Your task to perform on an android device: open the mobile data screen to see how much data has been used Image 0: 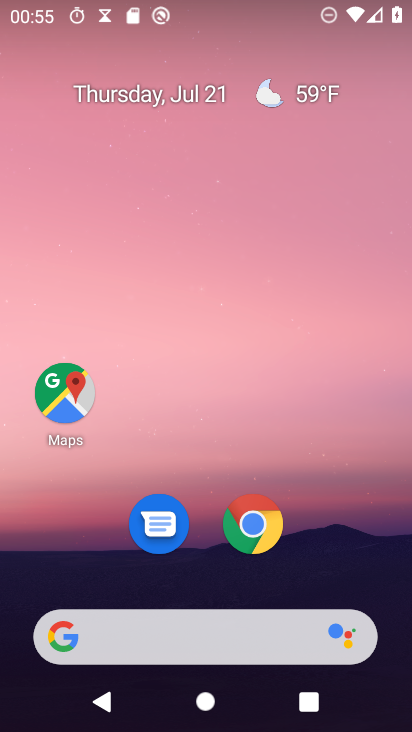
Step 0: drag from (138, 635) to (283, 247)
Your task to perform on an android device: open the mobile data screen to see how much data has been used Image 1: 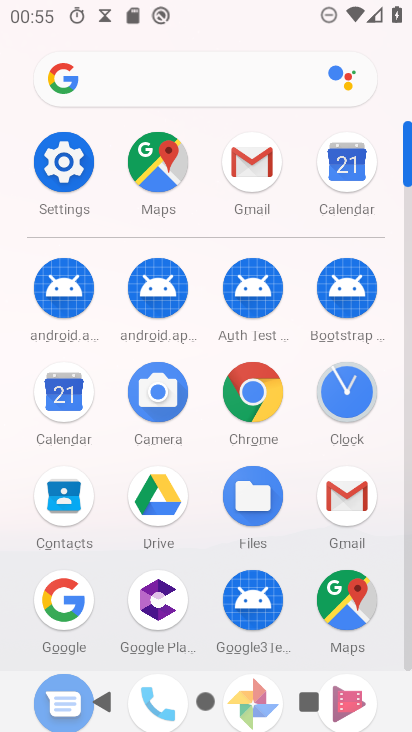
Step 1: click (74, 166)
Your task to perform on an android device: open the mobile data screen to see how much data has been used Image 2: 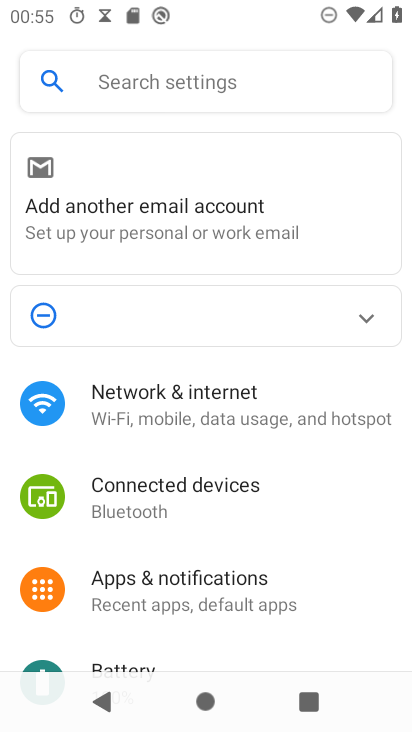
Step 2: click (152, 411)
Your task to perform on an android device: open the mobile data screen to see how much data has been used Image 3: 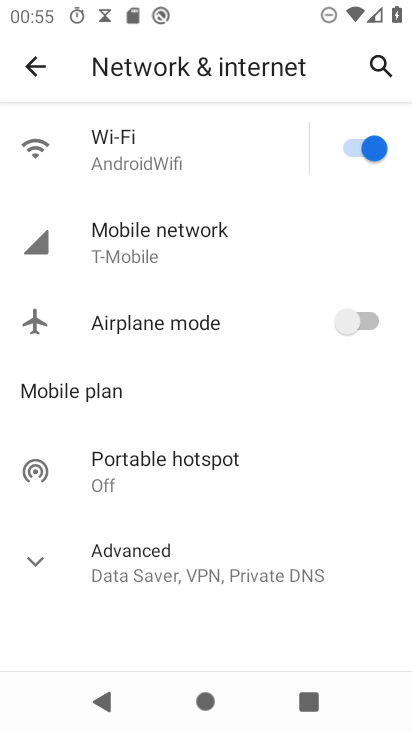
Step 3: click (174, 259)
Your task to perform on an android device: open the mobile data screen to see how much data has been used Image 4: 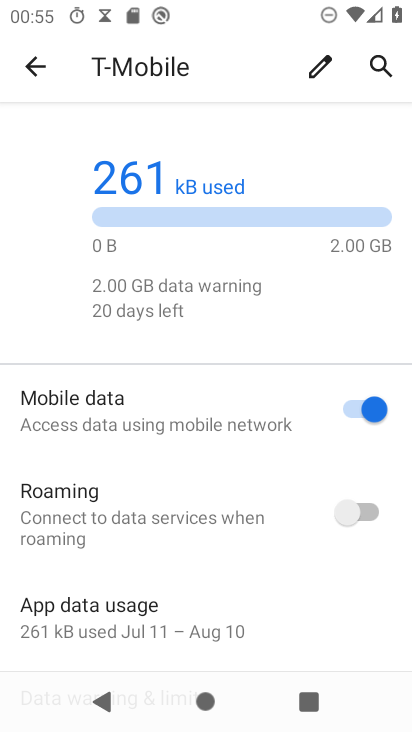
Step 4: task complete